Your task to perform on an android device: What's on my calendar tomorrow? Image 0: 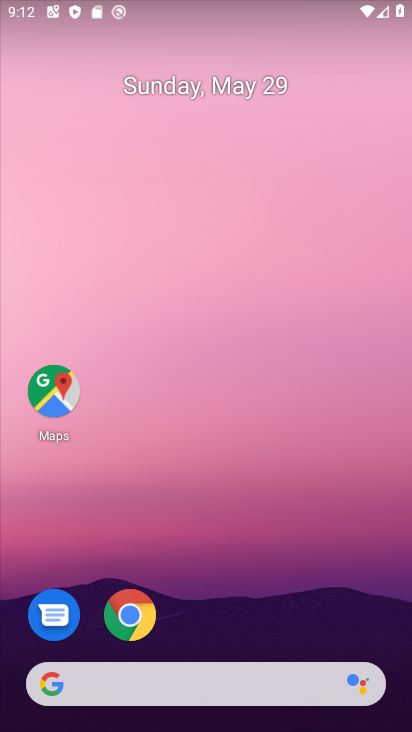
Step 0: drag from (274, 621) to (327, 6)
Your task to perform on an android device: What's on my calendar tomorrow? Image 1: 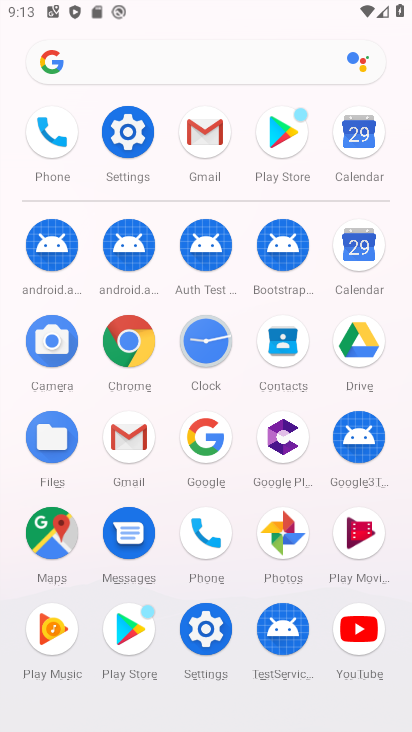
Step 1: click (369, 248)
Your task to perform on an android device: What's on my calendar tomorrow? Image 2: 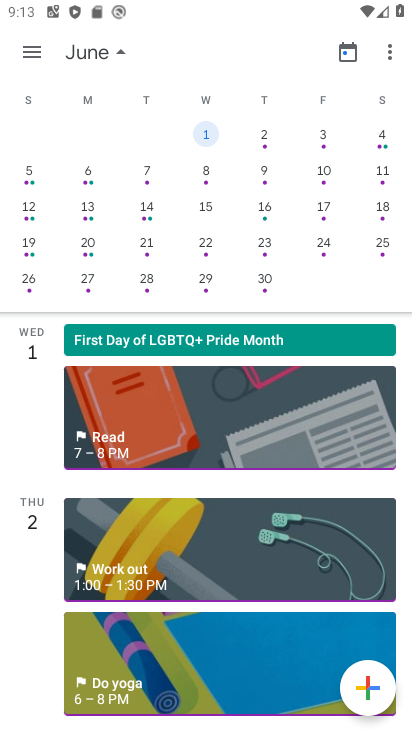
Step 2: drag from (61, 220) to (402, 221)
Your task to perform on an android device: What's on my calendar tomorrow? Image 3: 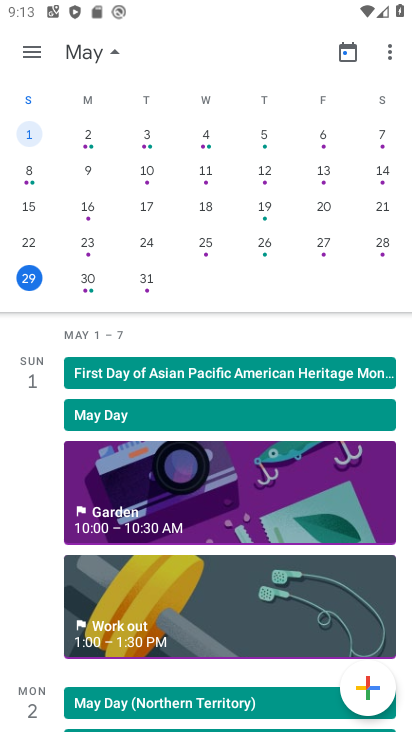
Step 3: click (91, 281)
Your task to perform on an android device: What's on my calendar tomorrow? Image 4: 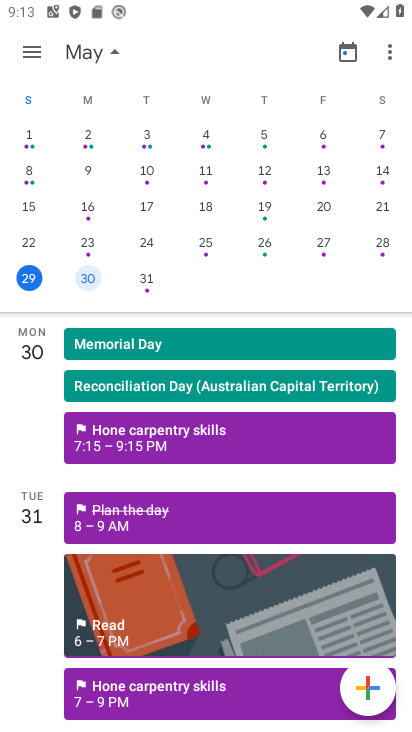
Step 4: task complete